Your task to perform on an android device: move an email to a new category in the gmail app Image 0: 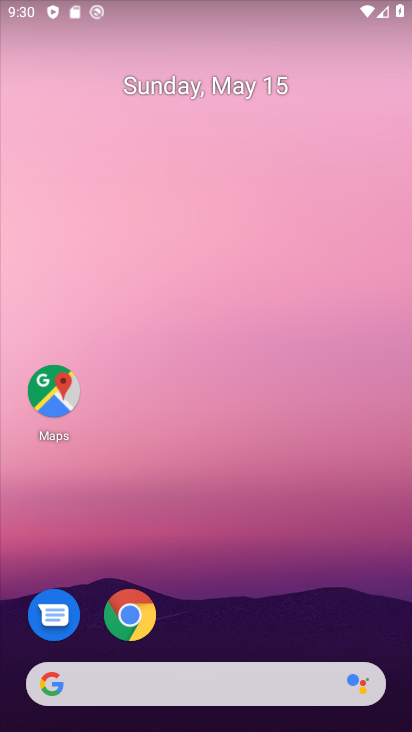
Step 0: drag from (193, 647) to (291, 148)
Your task to perform on an android device: move an email to a new category in the gmail app Image 1: 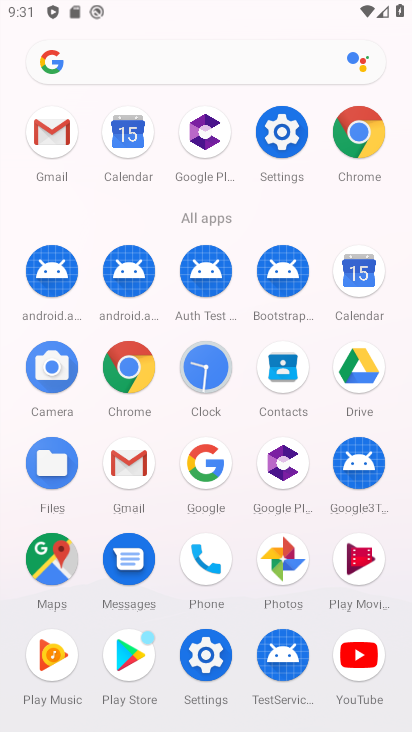
Step 1: click (132, 469)
Your task to perform on an android device: move an email to a new category in the gmail app Image 2: 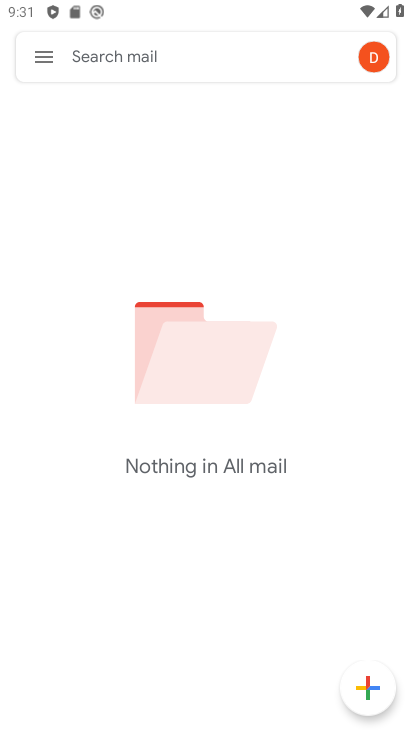
Step 2: click (47, 50)
Your task to perform on an android device: move an email to a new category in the gmail app Image 3: 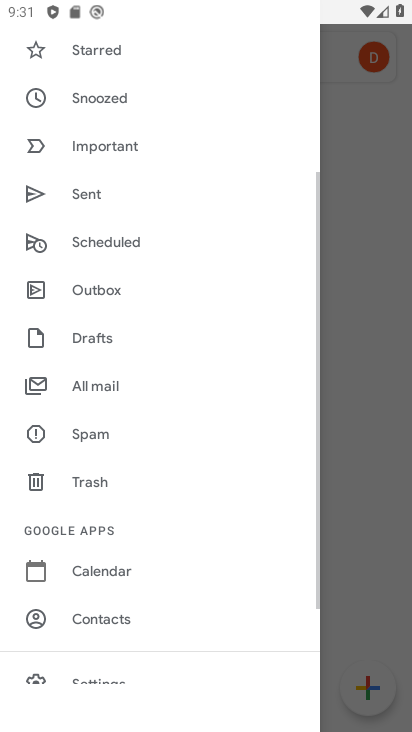
Step 3: click (146, 379)
Your task to perform on an android device: move an email to a new category in the gmail app Image 4: 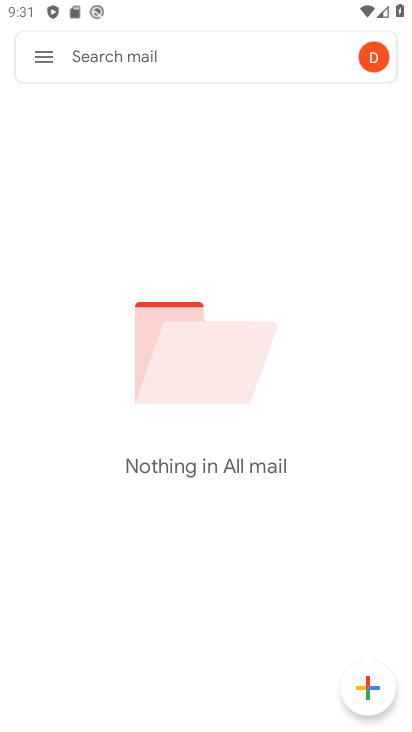
Step 4: task complete